Your task to perform on an android device: check storage Image 0: 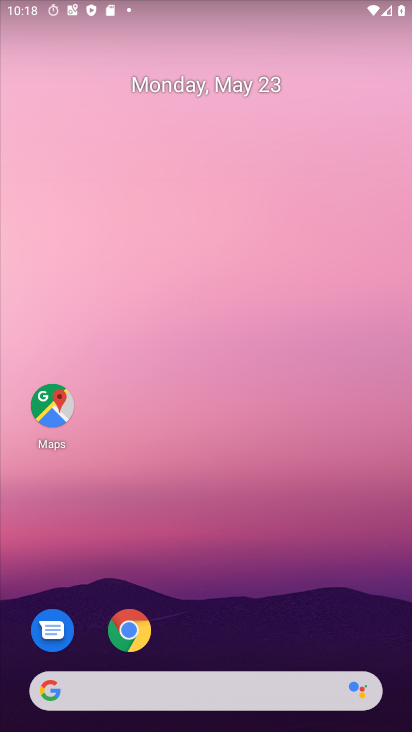
Step 0: drag from (196, 645) to (229, 7)
Your task to perform on an android device: check storage Image 1: 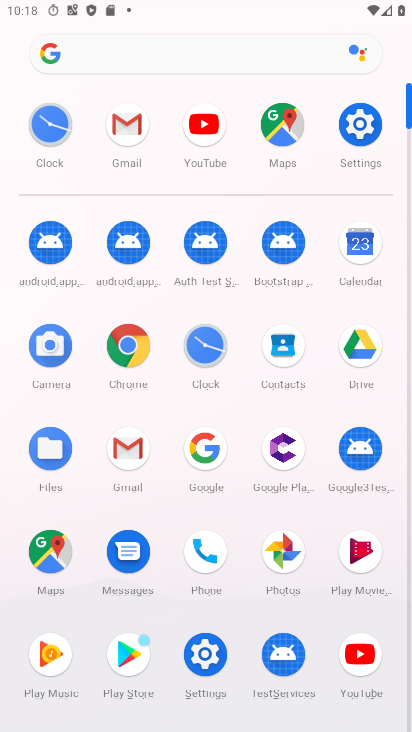
Step 1: click (355, 122)
Your task to perform on an android device: check storage Image 2: 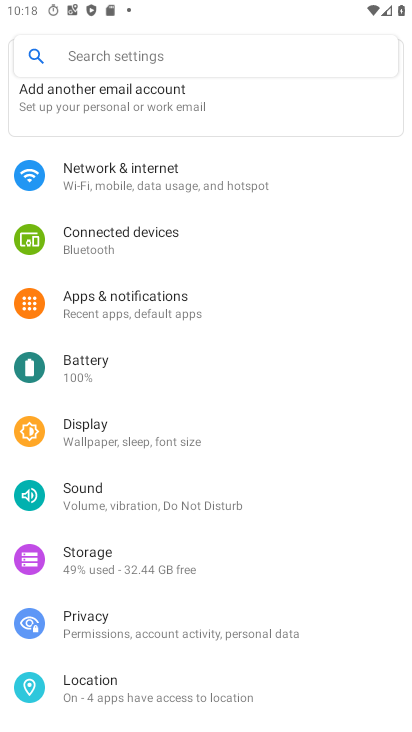
Step 2: click (76, 562)
Your task to perform on an android device: check storage Image 3: 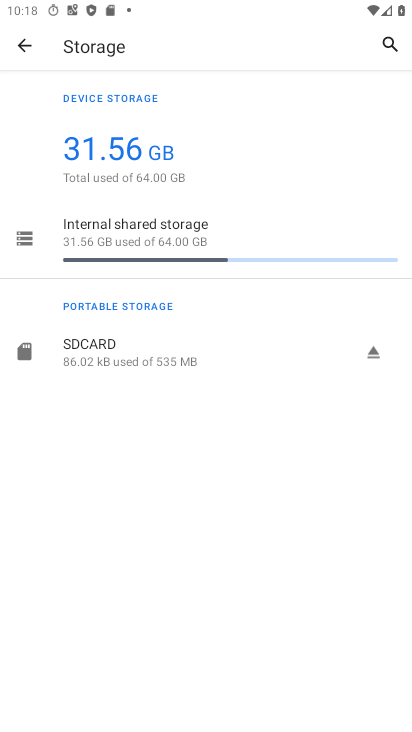
Step 3: click (154, 234)
Your task to perform on an android device: check storage Image 4: 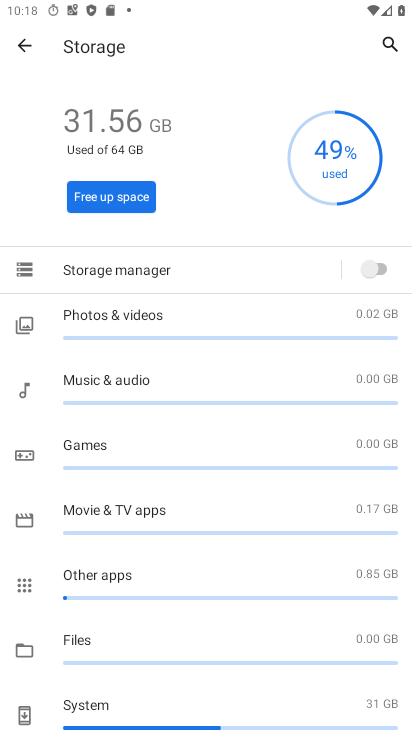
Step 4: task complete